Your task to perform on an android device: Go to Google maps Image 0: 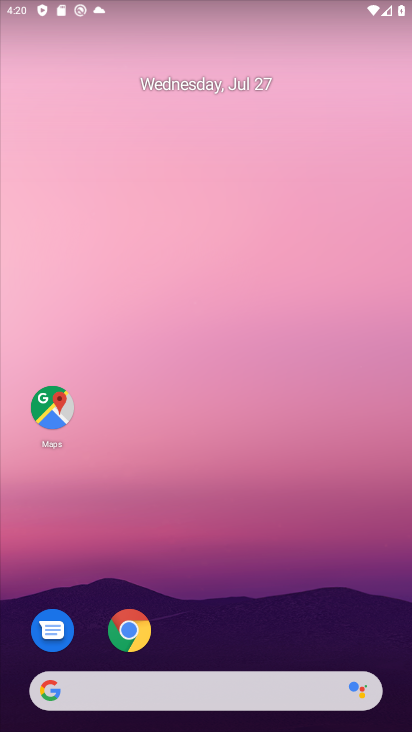
Step 0: drag from (195, 695) to (245, 77)
Your task to perform on an android device: Go to Google maps Image 1: 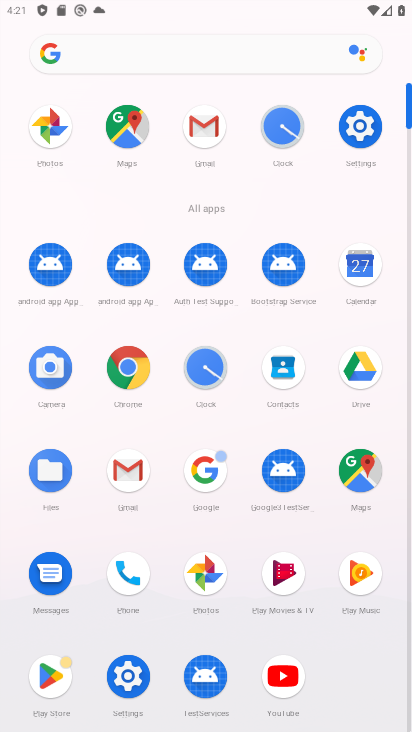
Step 1: click (129, 129)
Your task to perform on an android device: Go to Google maps Image 2: 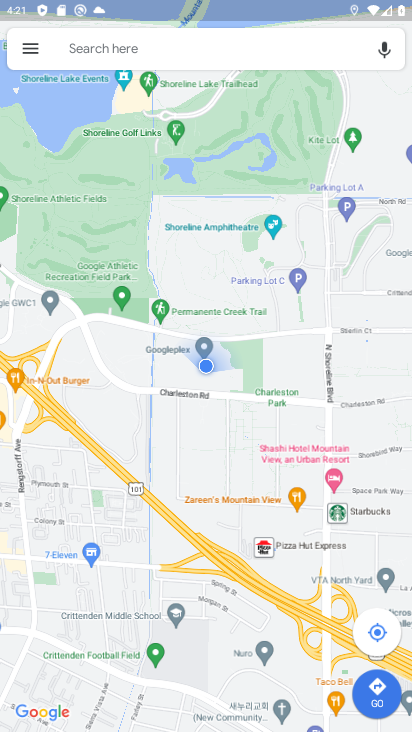
Step 2: task complete